Your task to perform on an android device: Do I have any events today? Image 0: 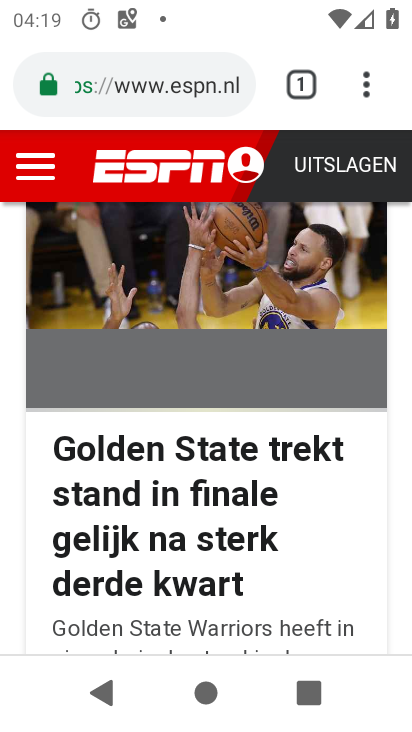
Step 0: press home button
Your task to perform on an android device: Do I have any events today? Image 1: 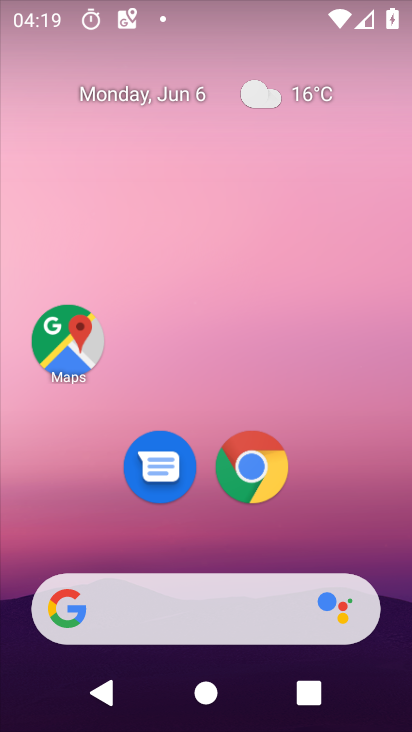
Step 1: drag from (203, 540) to (221, 7)
Your task to perform on an android device: Do I have any events today? Image 2: 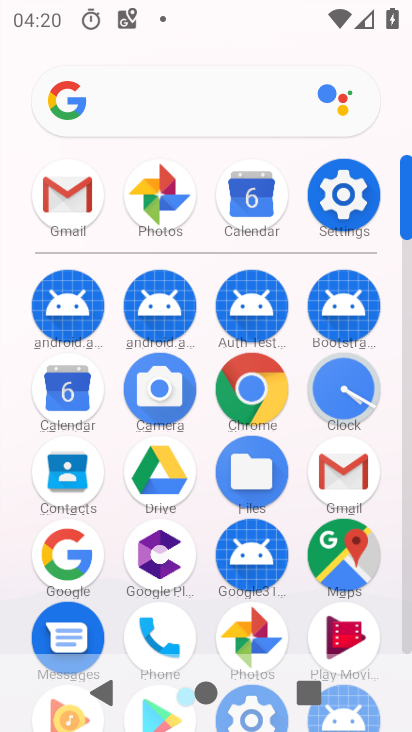
Step 2: click (71, 385)
Your task to perform on an android device: Do I have any events today? Image 3: 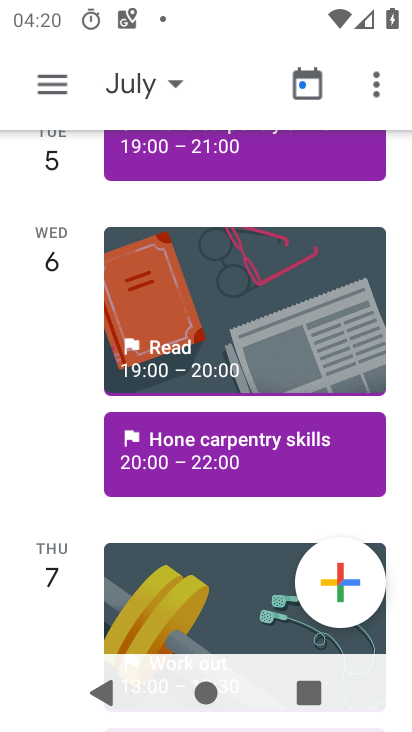
Step 3: drag from (92, 550) to (108, 366)
Your task to perform on an android device: Do I have any events today? Image 4: 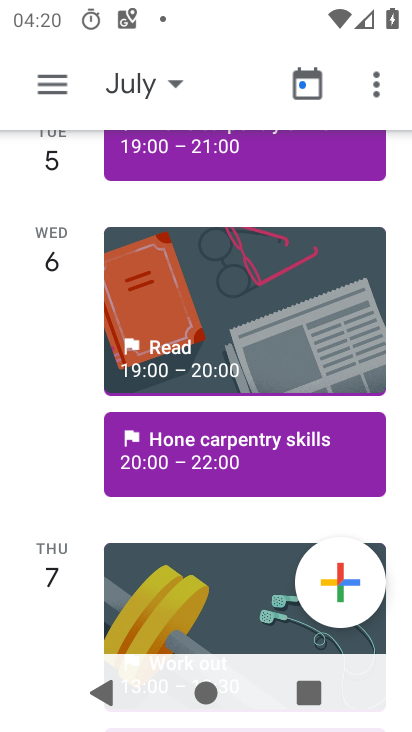
Step 4: click (175, 75)
Your task to perform on an android device: Do I have any events today? Image 5: 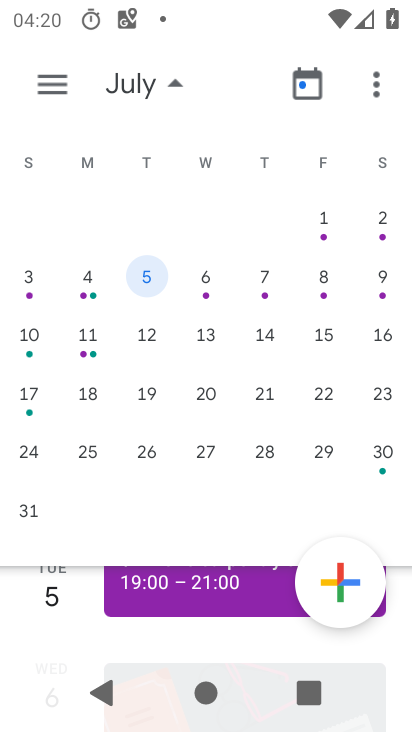
Step 5: drag from (50, 378) to (408, 397)
Your task to perform on an android device: Do I have any events today? Image 6: 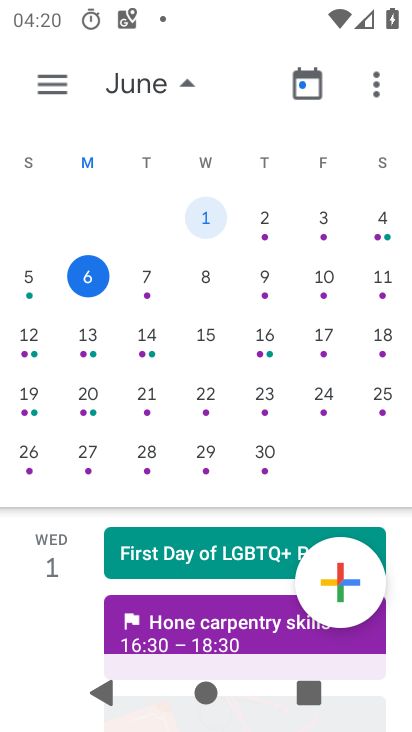
Step 6: click (93, 273)
Your task to perform on an android device: Do I have any events today? Image 7: 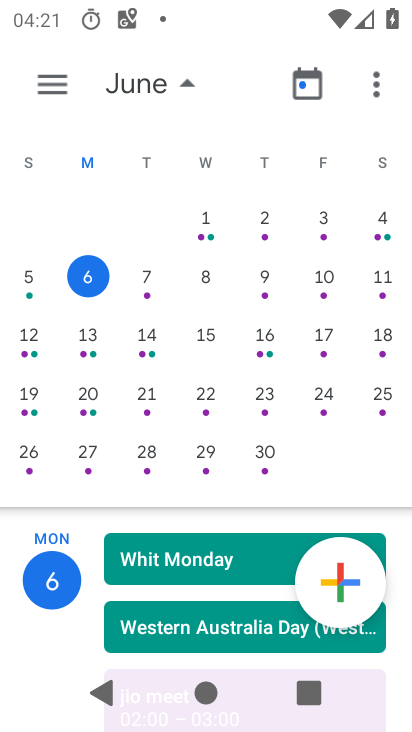
Step 7: click (192, 78)
Your task to perform on an android device: Do I have any events today? Image 8: 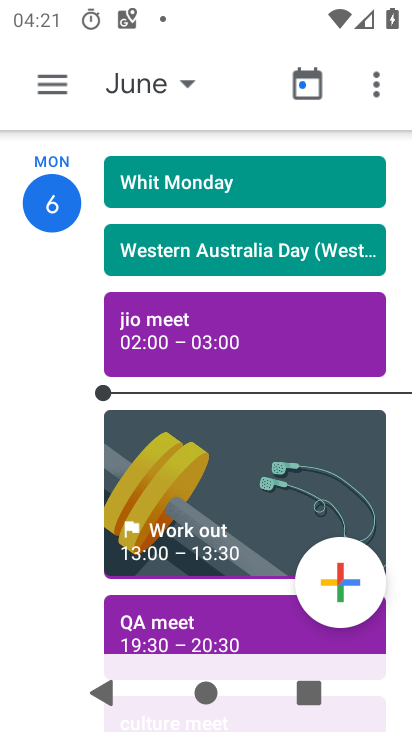
Step 8: drag from (65, 556) to (100, 122)
Your task to perform on an android device: Do I have any events today? Image 9: 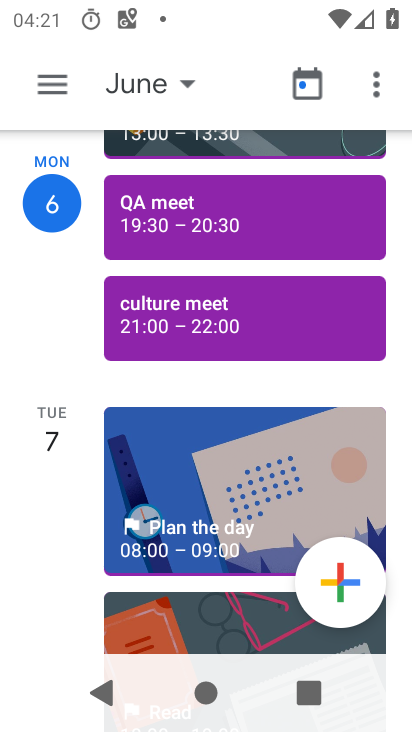
Step 9: click (57, 239)
Your task to perform on an android device: Do I have any events today? Image 10: 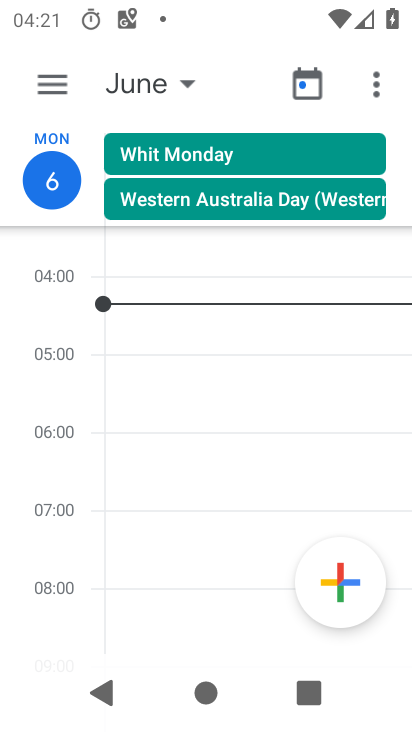
Step 10: task complete